Your task to perform on an android device: turn off notifications settings in the gmail app Image 0: 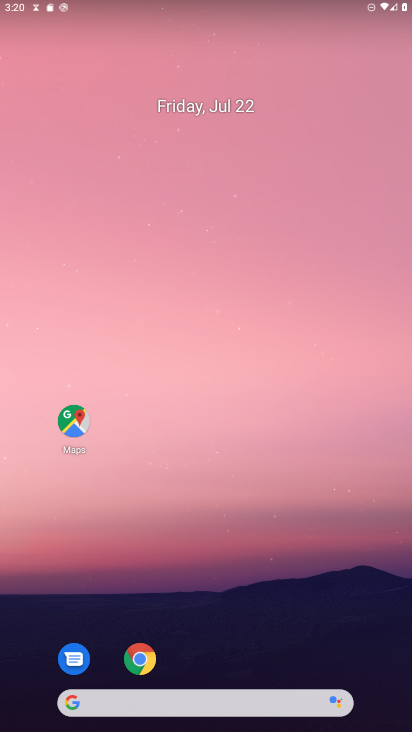
Step 0: drag from (203, 443) to (190, 78)
Your task to perform on an android device: turn off notifications settings in the gmail app Image 1: 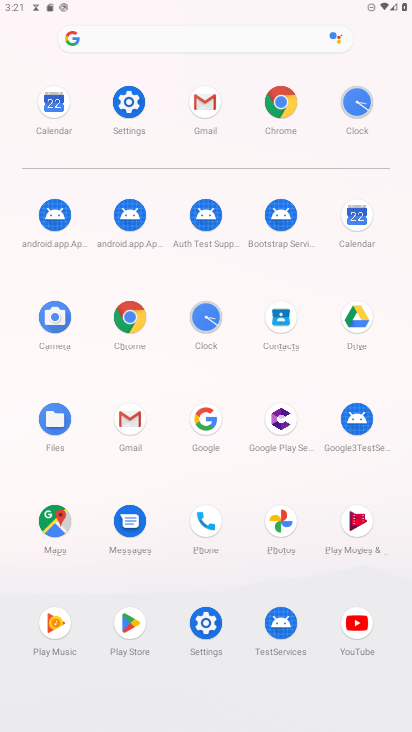
Step 1: click (213, 118)
Your task to perform on an android device: turn off notifications settings in the gmail app Image 2: 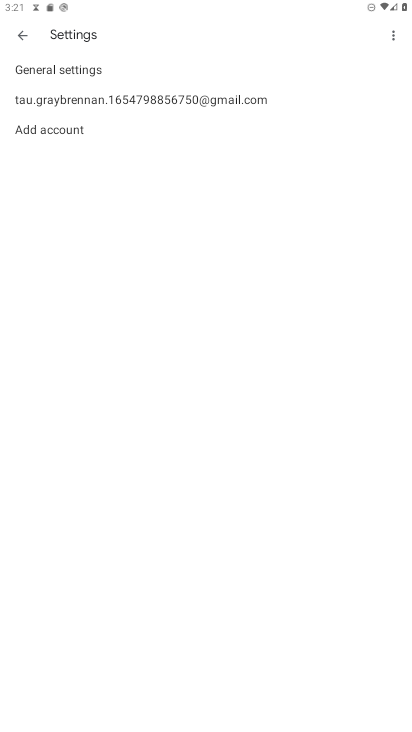
Step 2: click (107, 112)
Your task to perform on an android device: turn off notifications settings in the gmail app Image 3: 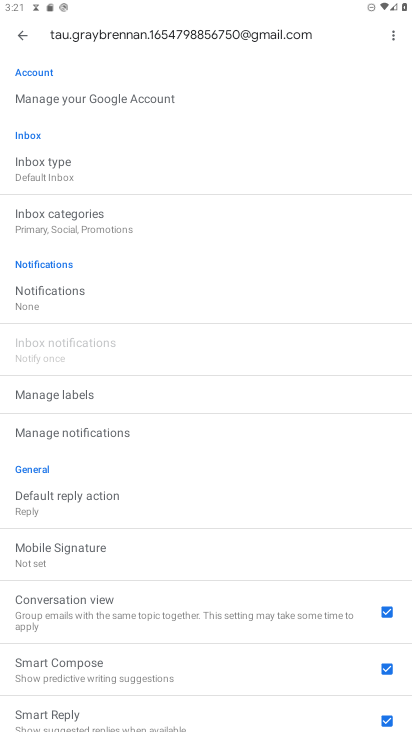
Step 3: click (71, 301)
Your task to perform on an android device: turn off notifications settings in the gmail app Image 4: 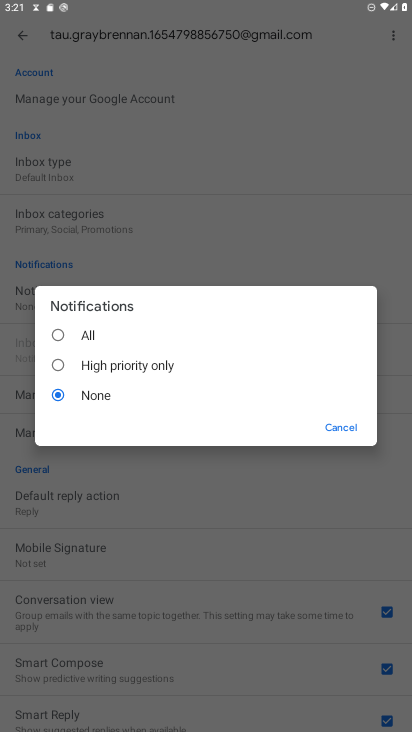
Step 4: task complete